Your task to perform on an android device: Go to sound settings Image 0: 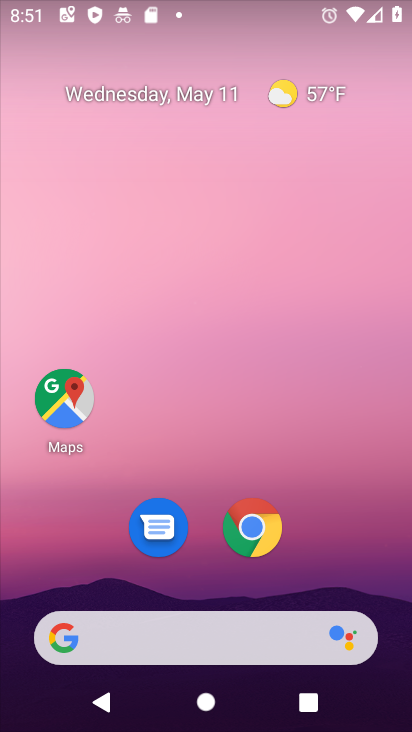
Step 0: drag from (355, 591) to (344, 4)
Your task to perform on an android device: Go to sound settings Image 1: 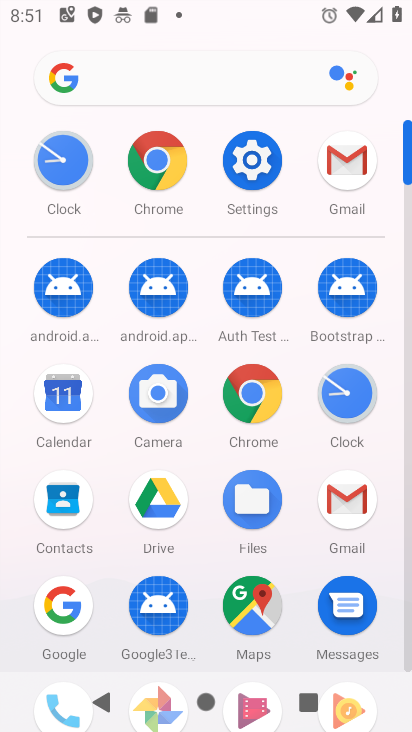
Step 1: click (246, 172)
Your task to perform on an android device: Go to sound settings Image 2: 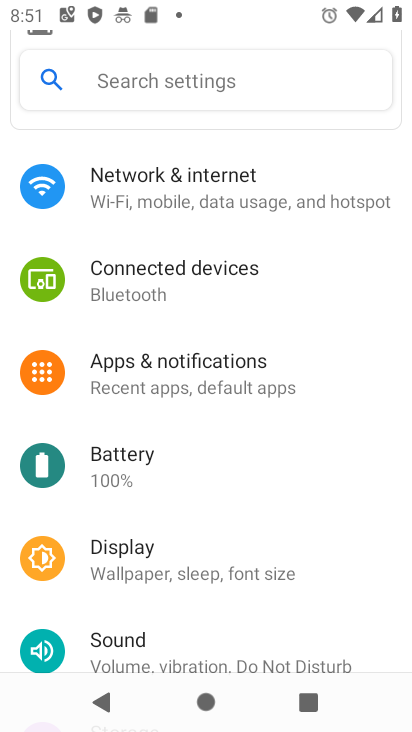
Step 2: click (127, 639)
Your task to perform on an android device: Go to sound settings Image 3: 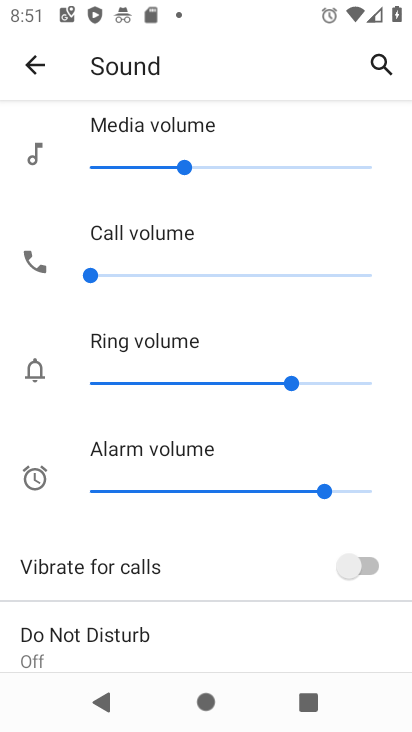
Step 3: task complete